Your task to perform on an android device: Open wifi settings Image 0: 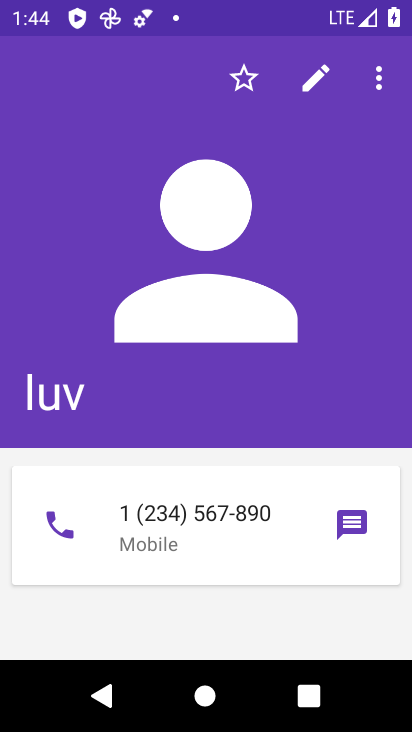
Step 0: press home button
Your task to perform on an android device: Open wifi settings Image 1: 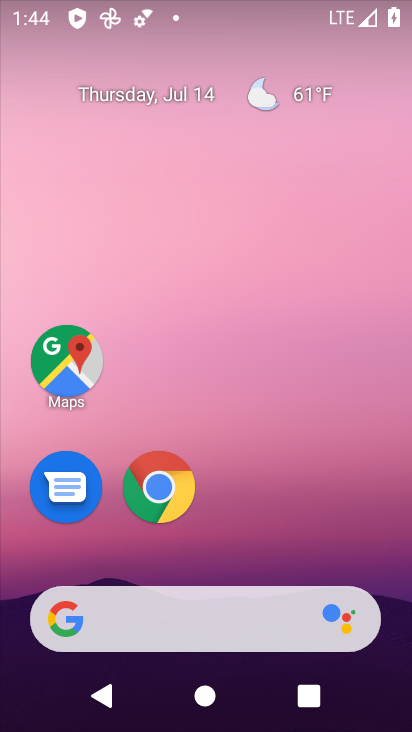
Step 1: drag from (318, 538) to (329, 117)
Your task to perform on an android device: Open wifi settings Image 2: 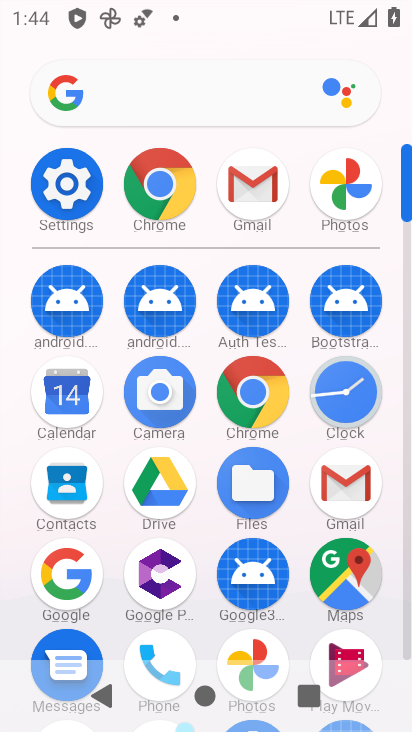
Step 2: click (73, 196)
Your task to perform on an android device: Open wifi settings Image 3: 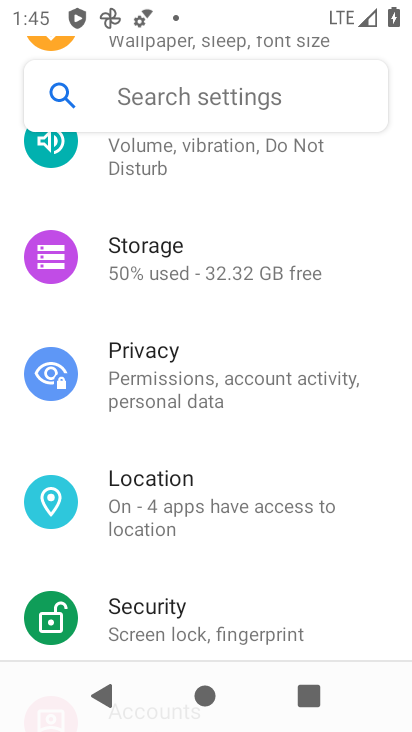
Step 3: drag from (356, 286) to (360, 400)
Your task to perform on an android device: Open wifi settings Image 4: 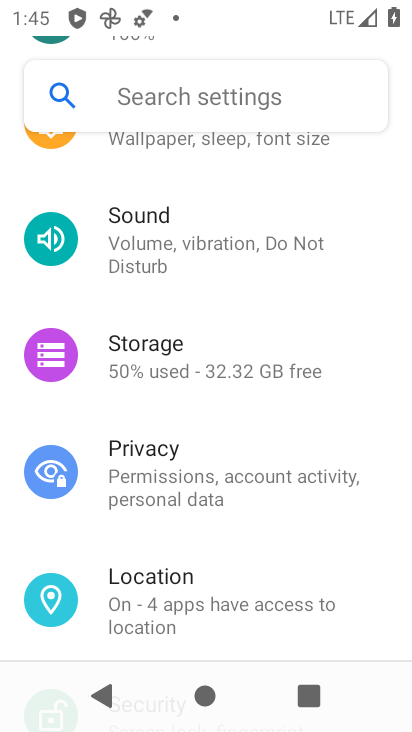
Step 4: drag from (360, 297) to (360, 400)
Your task to perform on an android device: Open wifi settings Image 5: 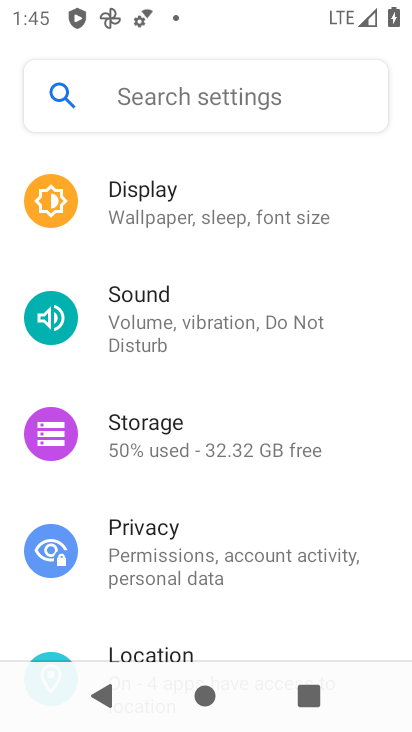
Step 5: drag from (355, 291) to (360, 374)
Your task to perform on an android device: Open wifi settings Image 6: 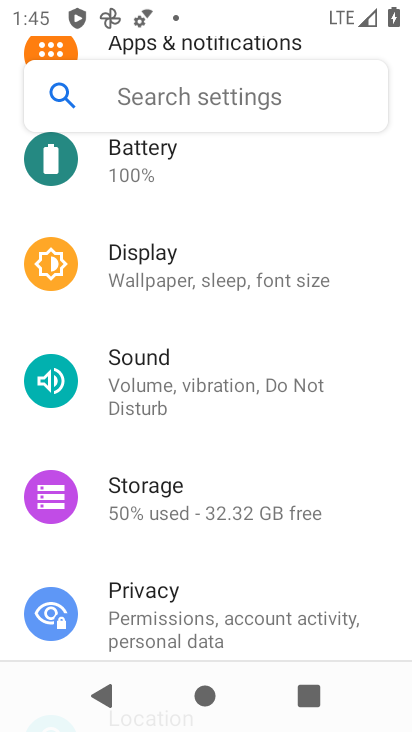
Step 6: drag from (354, 263) to (357, 368)
Your task to perform on an android device: Open wifi settings Image 7: 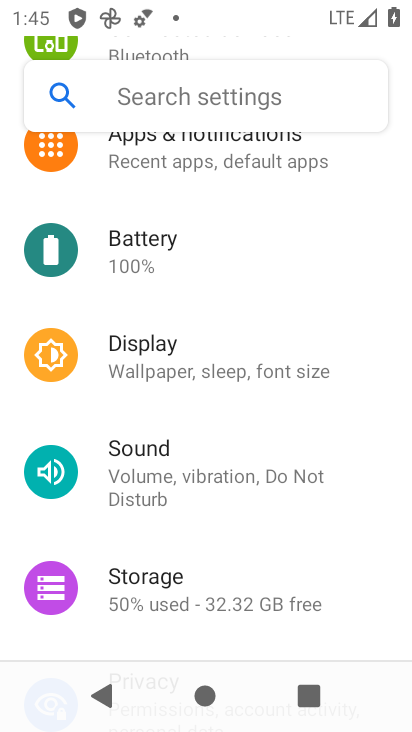
Step 7: drag from (363, 227) to (350, 385)
Your task to perform on an android device: Open wifi settings Image 8: 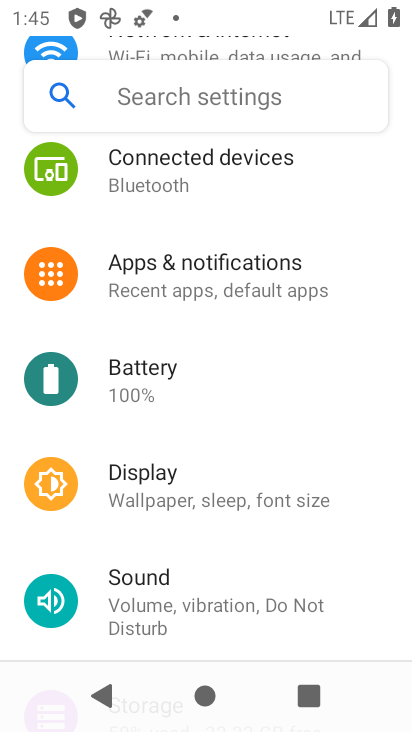
Step 8: drag from (366, 270) to (367, 388)
Your task to perform on an android device: Open wifi settings Image 9: 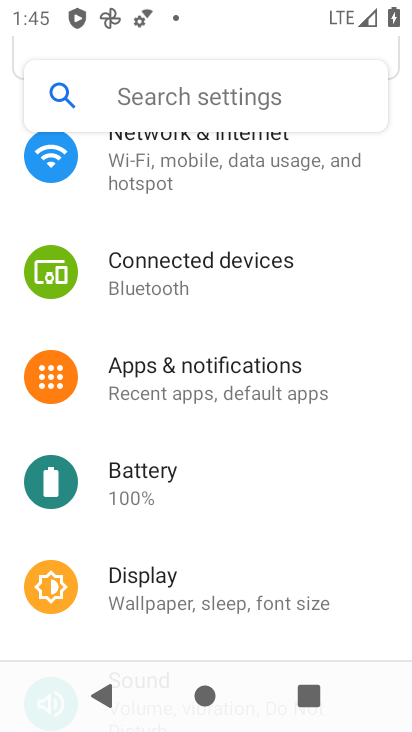
Step 9: drag from (357, 253) to (356, 400)
Your task to perform on an android device: Open wifi settings Image 10: 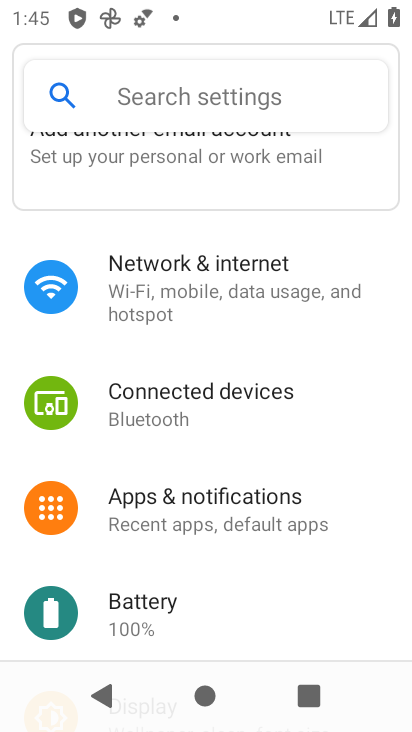
Step 10: click (296, 289)
Your task to perform on an android device: Open wifi settings Image 11: 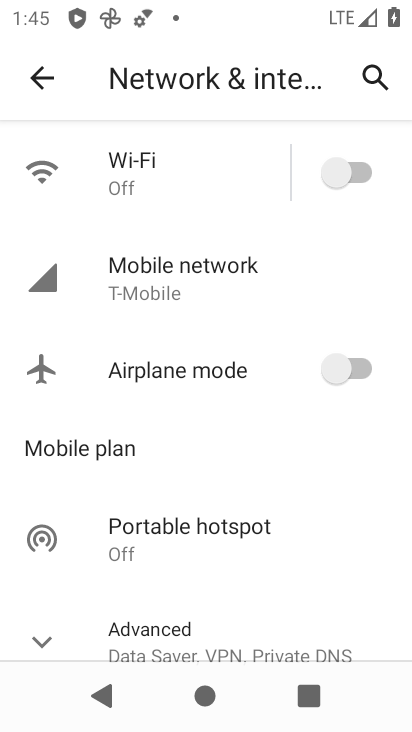
Step 11: click (178, 189)
Your task to perform on an android device: Open wifi settings Image 12: 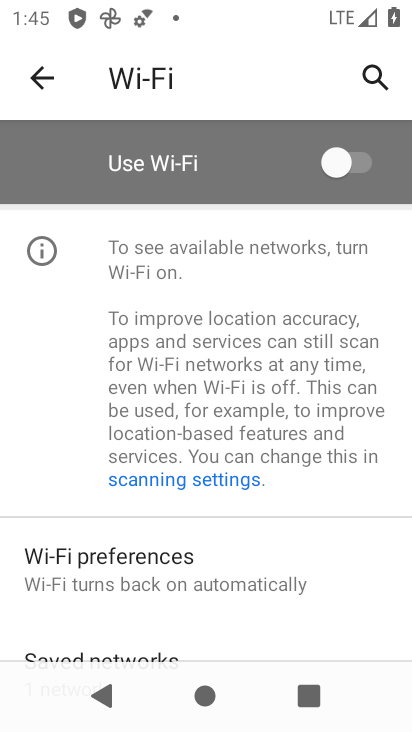
Step 12: task complete